Your task to perform on an android device: snooze an email in the gmail app Image 0: 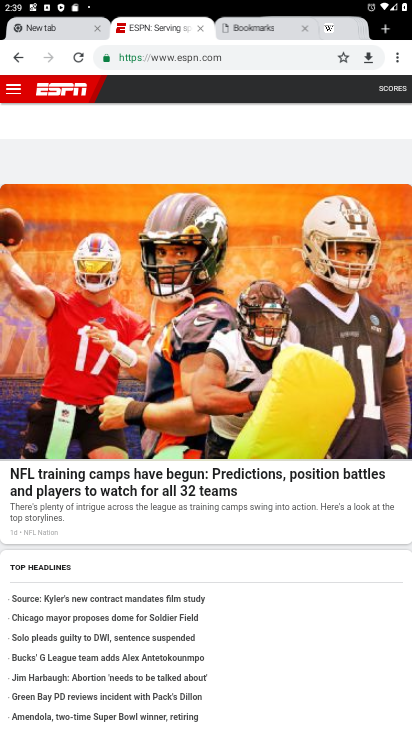
Step 0: press home button
Your task to perform on an android device: snooze an email in the gmail app Image 1: 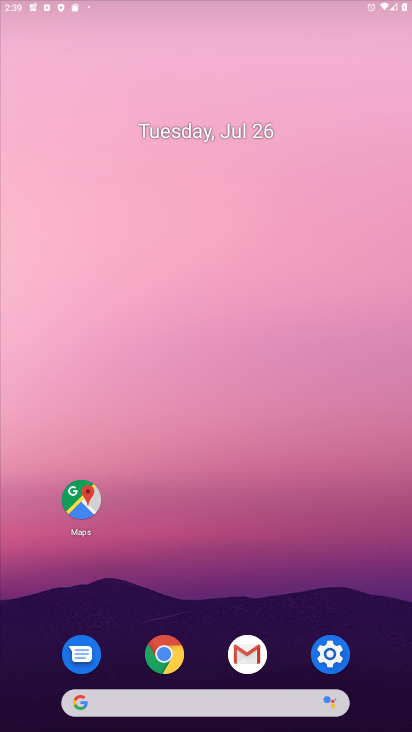
Step 1: drag from (251, 704) to (305, 536)
Your task to perform on an android device: snooze an email in the gmail app Image 2: 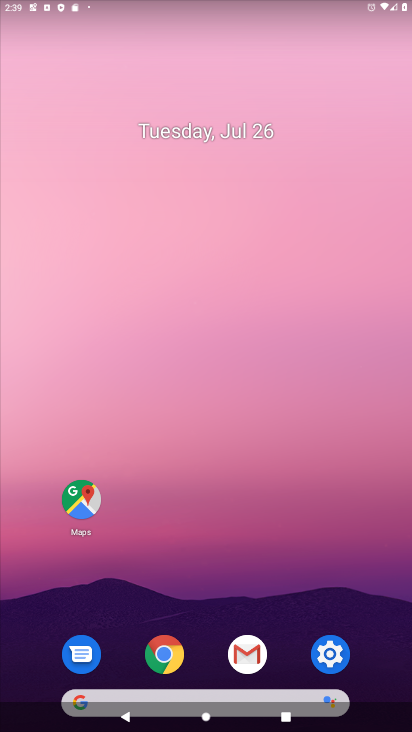
Step 2: click (252, 634)
Your task to perform on an android device: snooze an email in the gmail app Image 3: 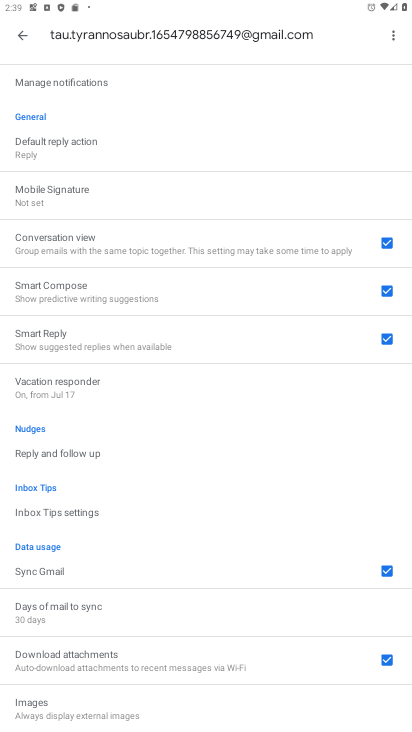
Step 3: click (17, 47)
Your task to perform on an android device: snooze an email in the gmail app Image 4: 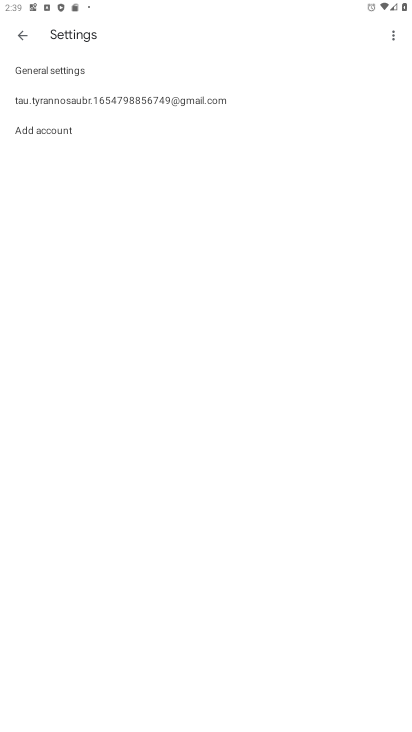
Step 4: click (11, 41)
Your task to perform on an android device: snooze an email in the gmail app Image 5: 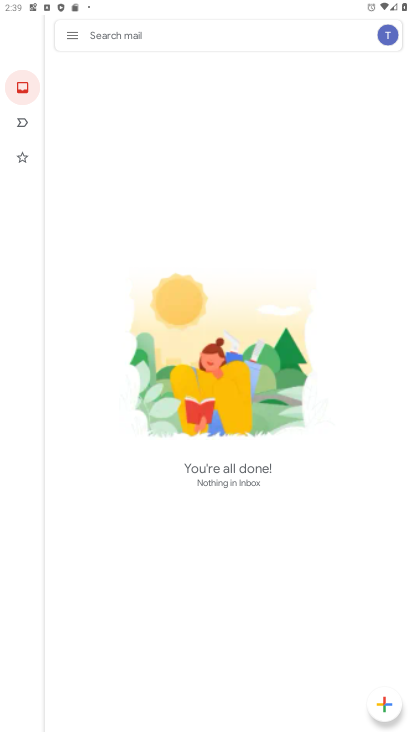
Step 5: click (73, 37)
Your task to perform on an android device: snooze an email in the gmail app Image 6: 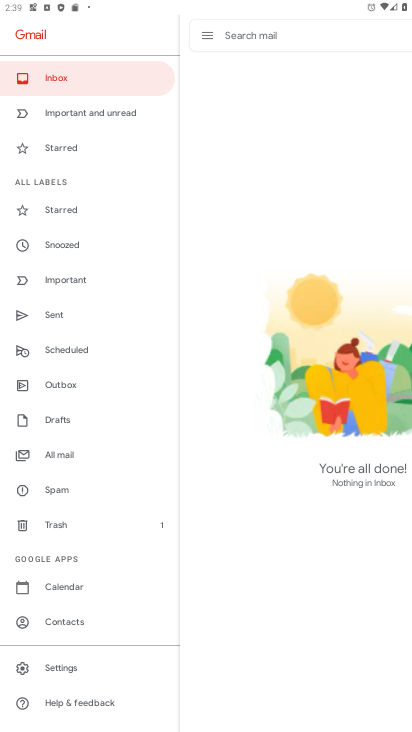
Step 6: click (68, 449)
Your task to perform on an android device: snooze an email in the gmail app Image 7: 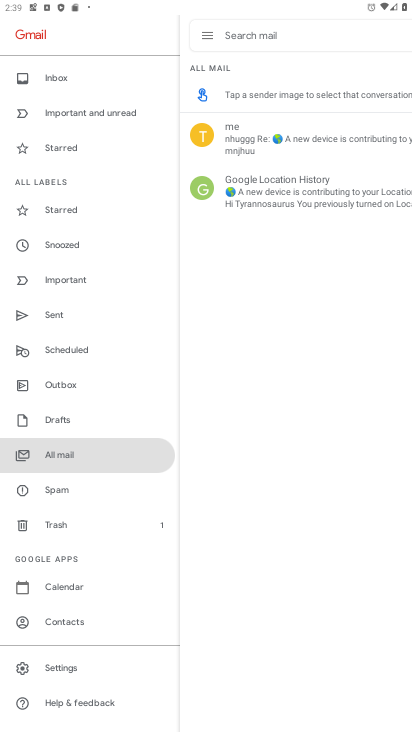
Step 7: click (285, 145)
Your task to perform on an android device: snooze an email in the gmail app Image 8: 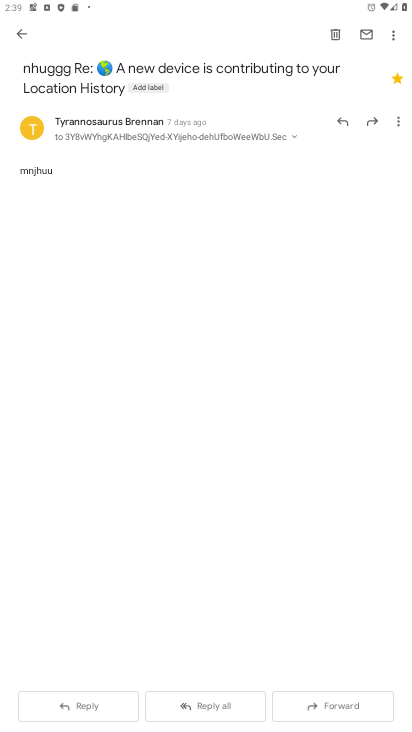
Step 8: click (392, 41)
Your task to perform on an android device: snooze an email in the gmail app Image 9: 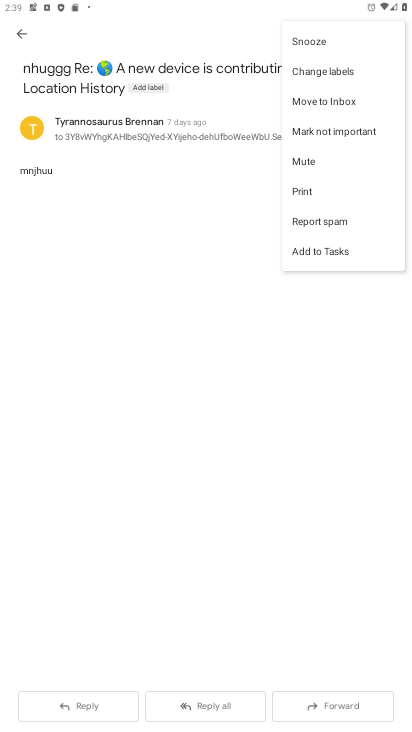
Step 9: click (301, 49)
Your task to perform on an android device: snooze an email in the gmail app Image 10: 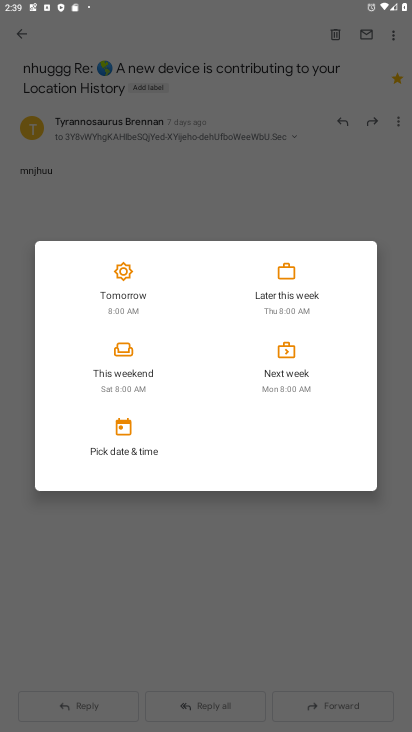
Step 10: click (273, 304)
Your task to perform on an android device: snooze an email in the gmail app Image 11: 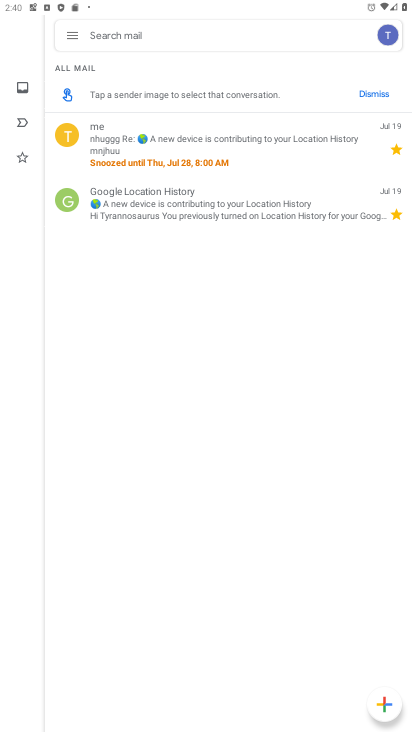
Step 11: task complete